Your task to perform on an android device: Go to Maps Image 0: 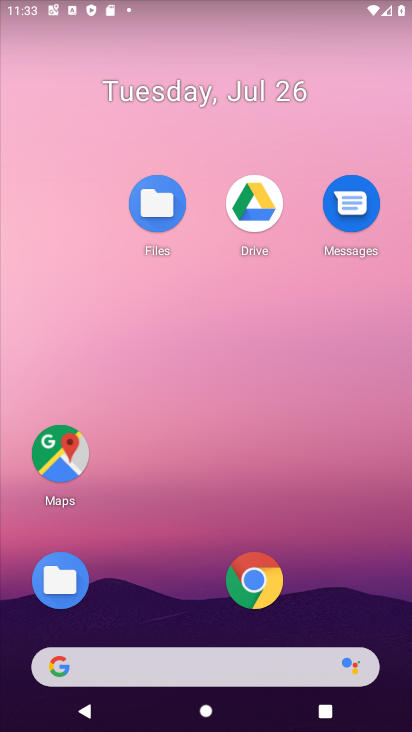
Step 0: click (43, 468)
Your task to perform on an android device: Go to Maps Image 1: 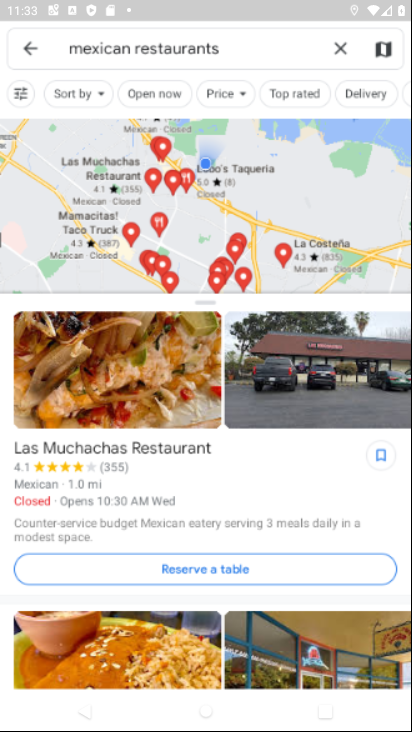
Step 1: task complete